Your task to perform on an android device: toggle notifications settings in the gmail app Image 0: 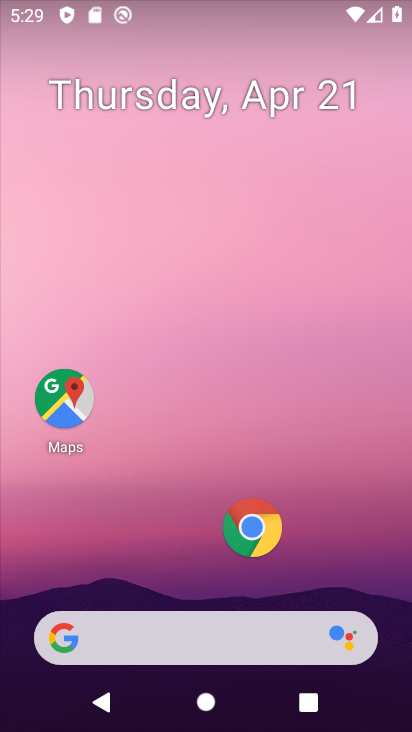
Step 0: drag from (218, 396) to (293, 86)
Your task to perform on an android device: toggle notifications settings in the gmail app Image 1: 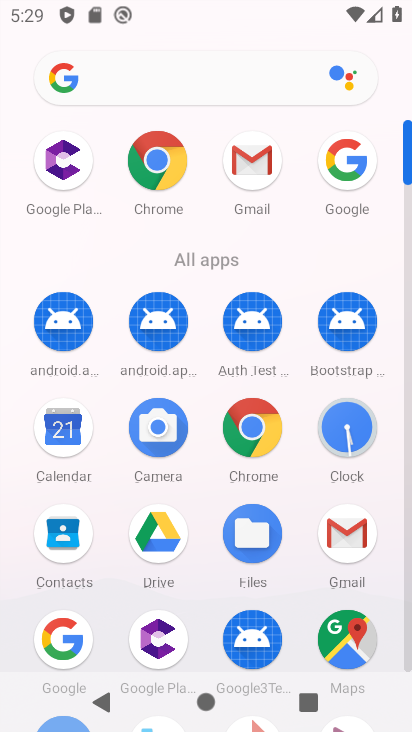
Step 1: click (334, 533)
Your task to perform on an android device: toggle notifications settings in the gmail app Image 2: 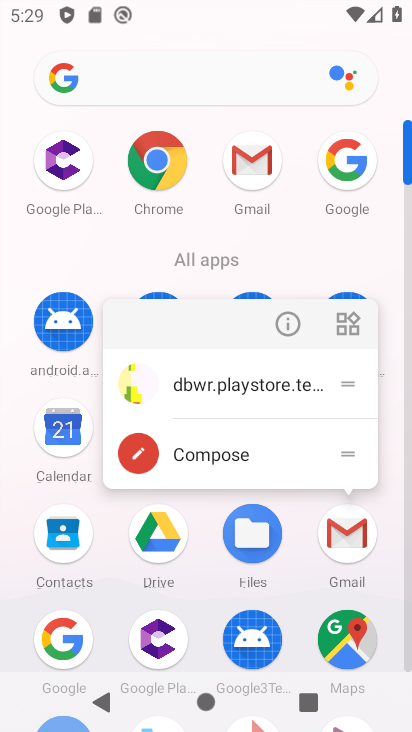
Step 2: click (292, 320)
Your task to perform on an android device: toggle notifications settings in the gmail app Image 3: 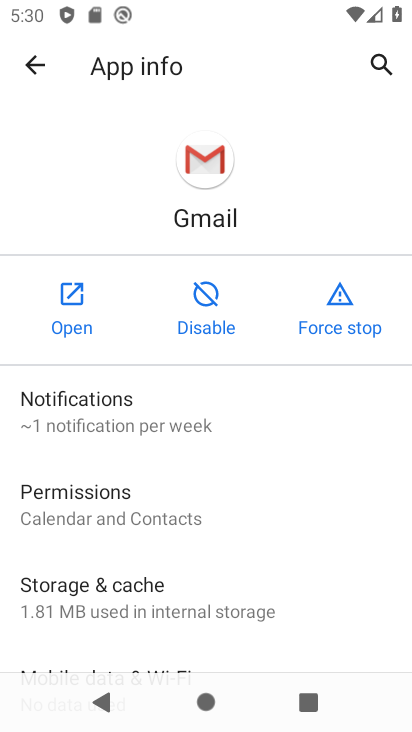
Step 3: click (134, 417)
Your task to perform on an android device: toggle notifications settings in the gmail app Image 4: 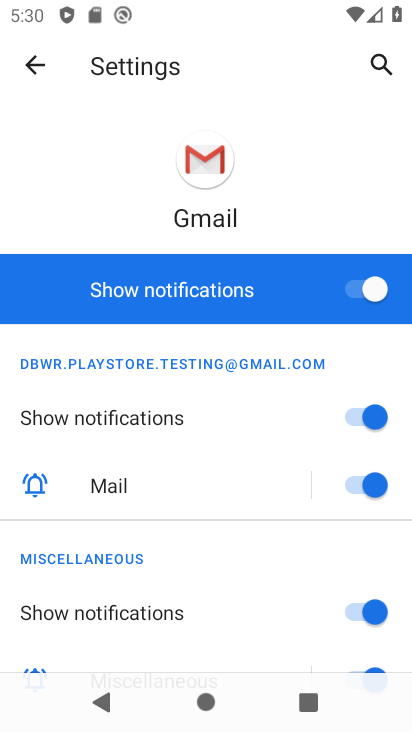
Step 4: click (365, 287)
Your task to perform on an android device: toggle notifications settings in the gmail app Image 5: 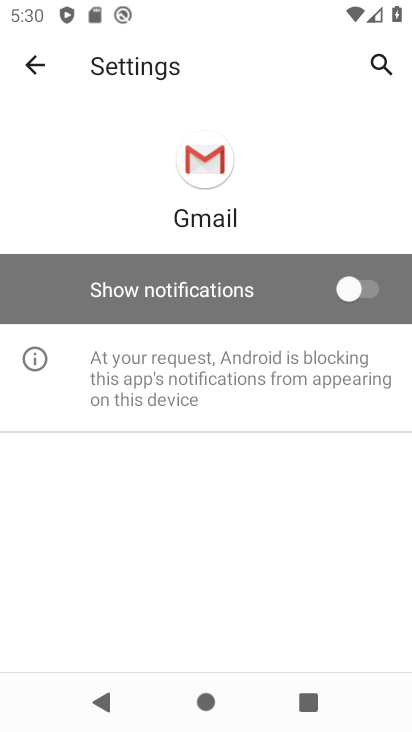
Step 5: task complete